Your task to perform on an android device: clear history in the chrome app Image 0: 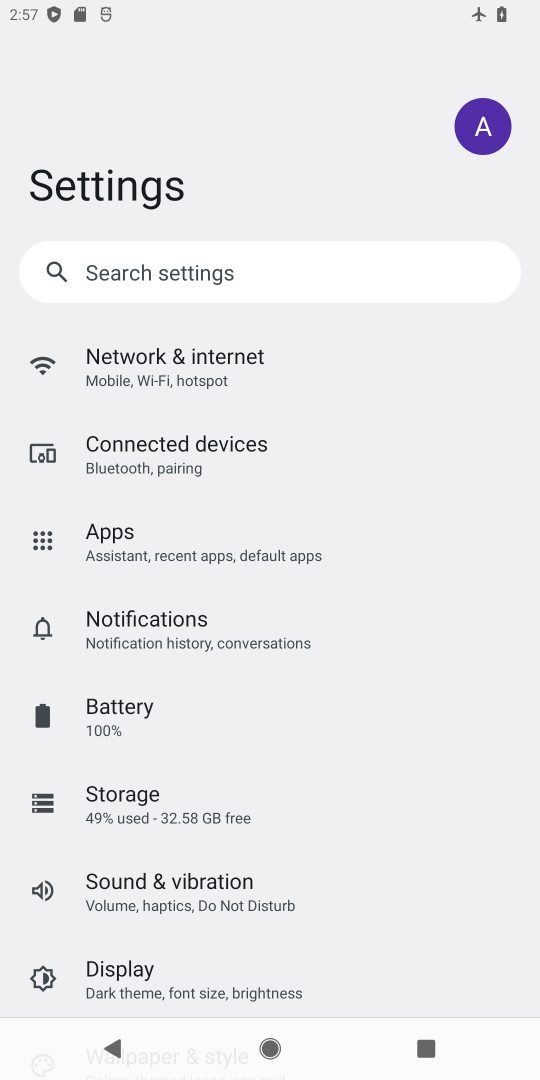
Step 0: press home button
Your task to perform on an android device: clear history in the chrome app Image 1: 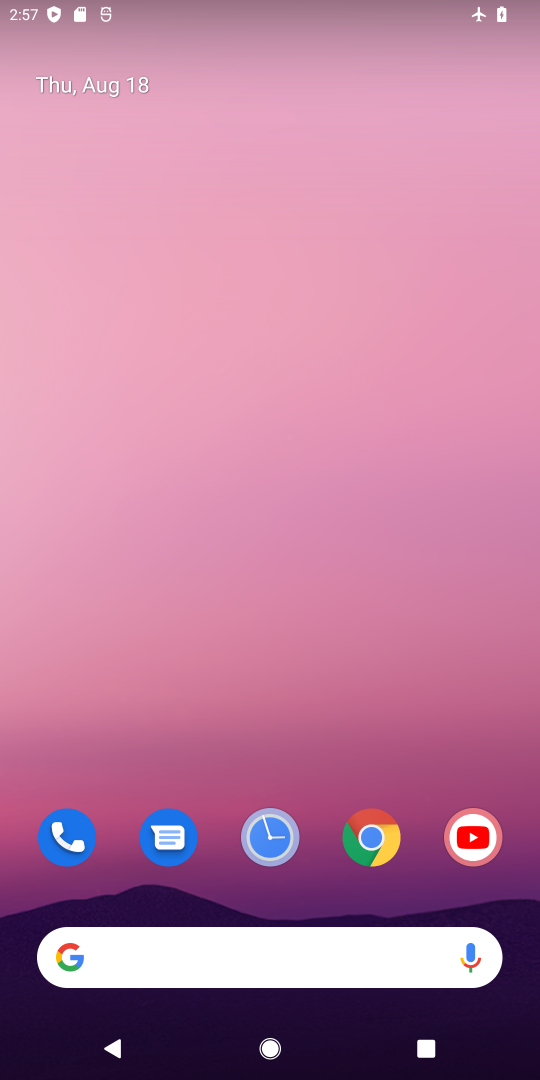
Step 1: drag from (331, 728) to (302, 5)
Your task to perform on an android device: clear history in the chrome app Image 2: 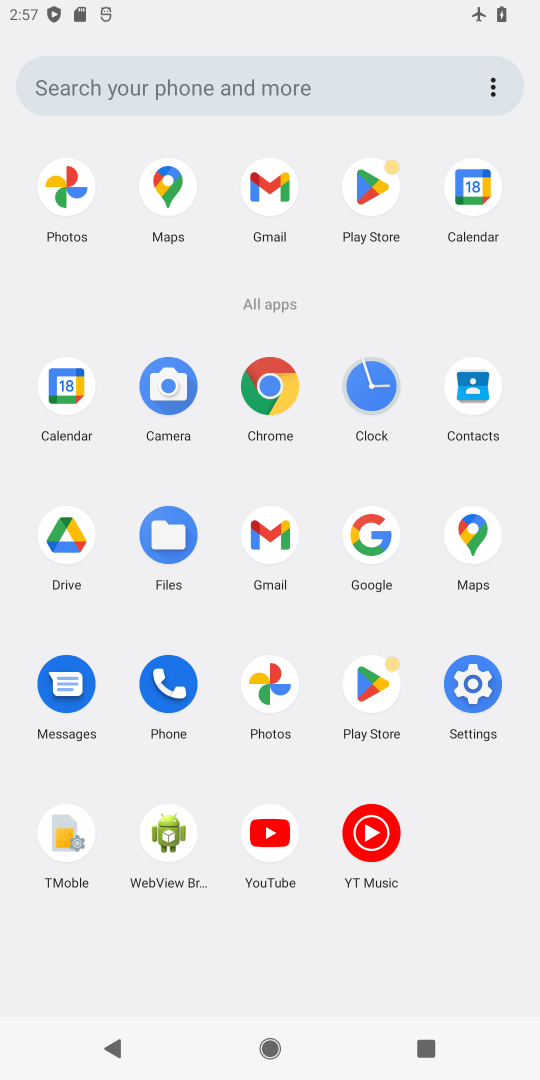
Step 2: click (265, 378)
Your task to perform on an android device: clear history in the chrome app Image 3: 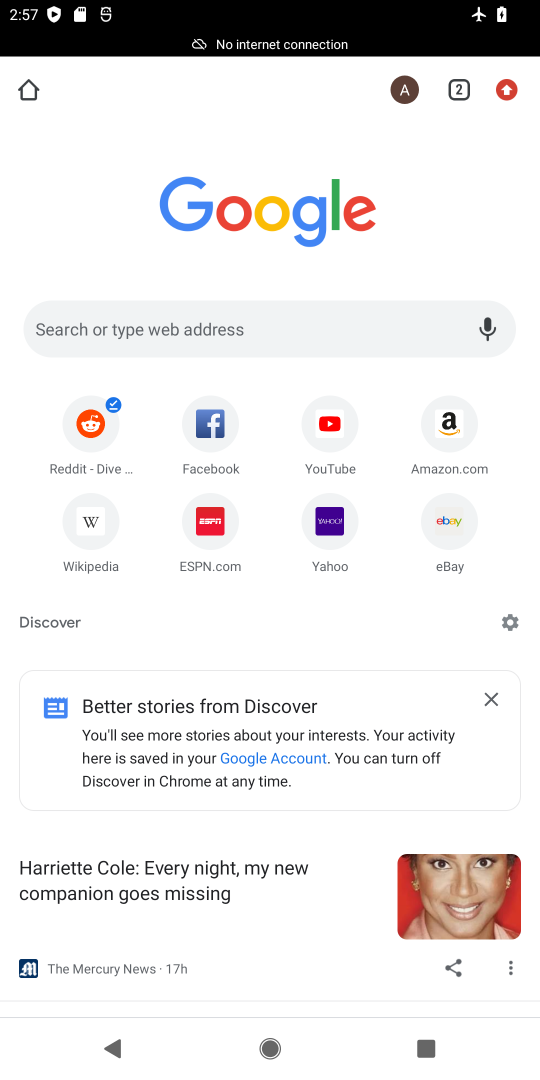
Step 3: drag from (534, 77) to (326, 349)
Your task to perform on an android device: clear history in the chrome app Image 4: 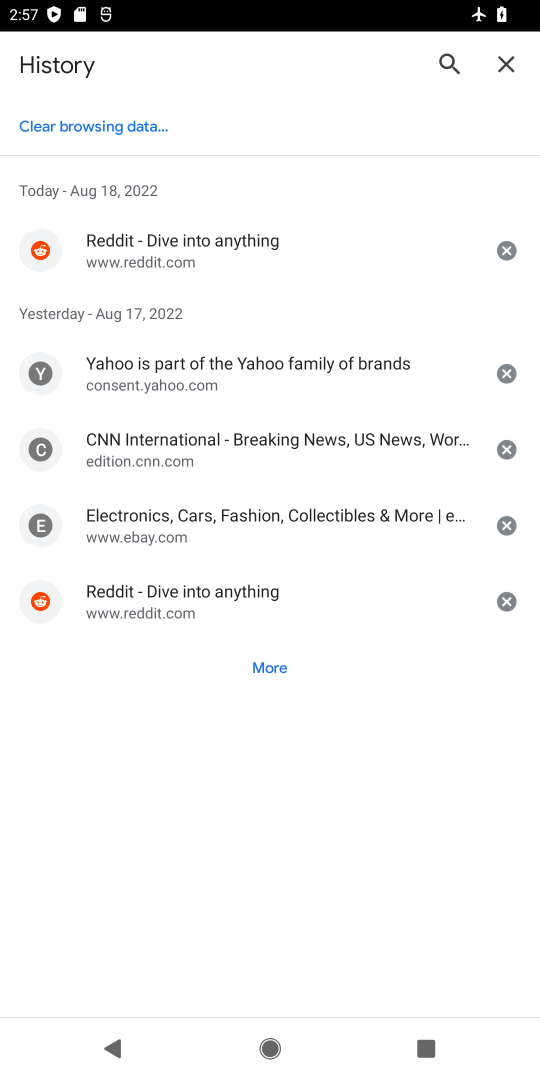
Step 4: click (106, 125)
Your task to perform on an android device: clear history in the chrome app Image 5: 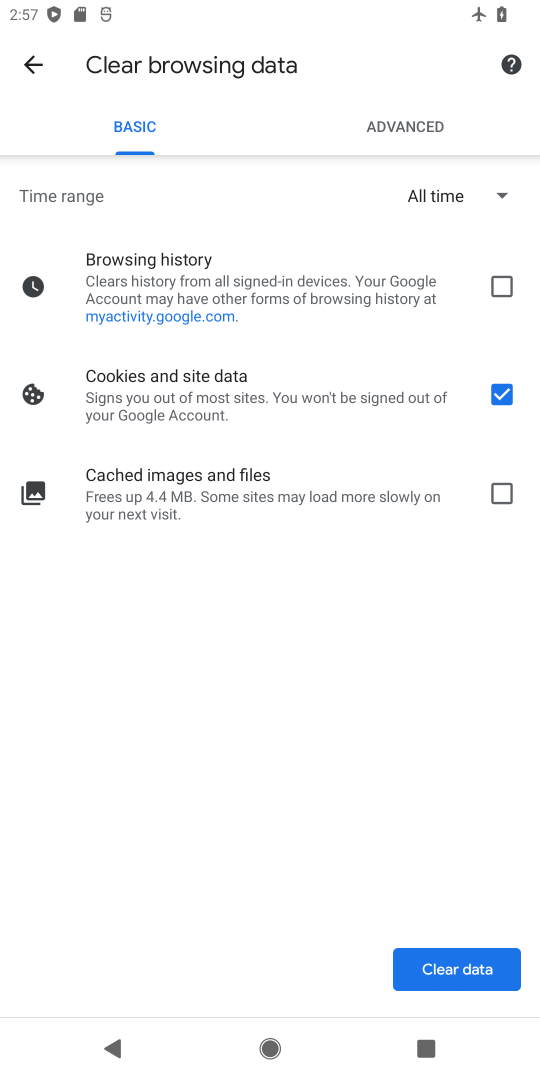
Step 5: click (500, 300)
Your task to perform on an android device: clear history in the chrome app Image 6: 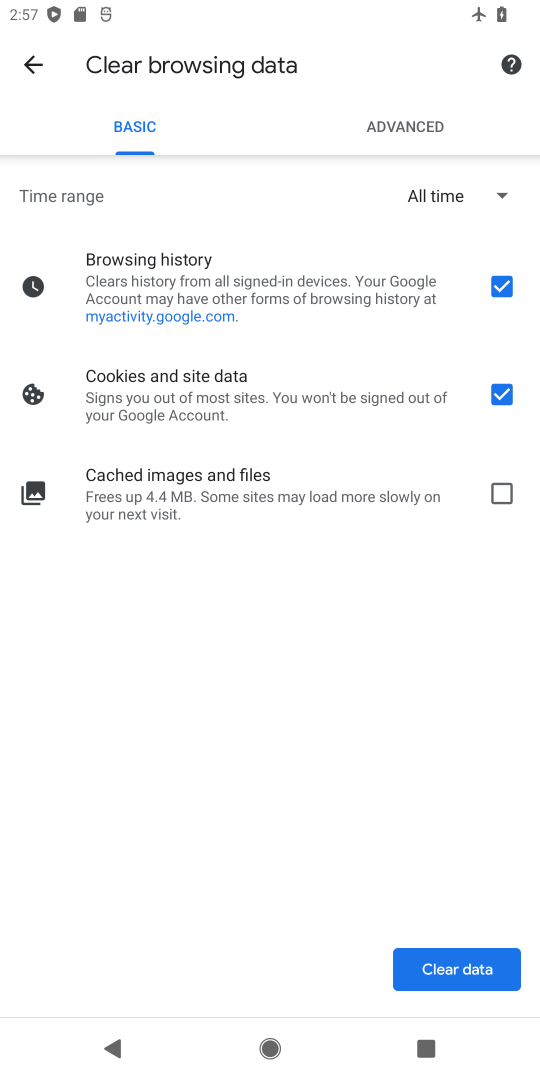
Step 6: click (502, 493)
Your task to perform on an android device: clear history in the chrome app Image 7: 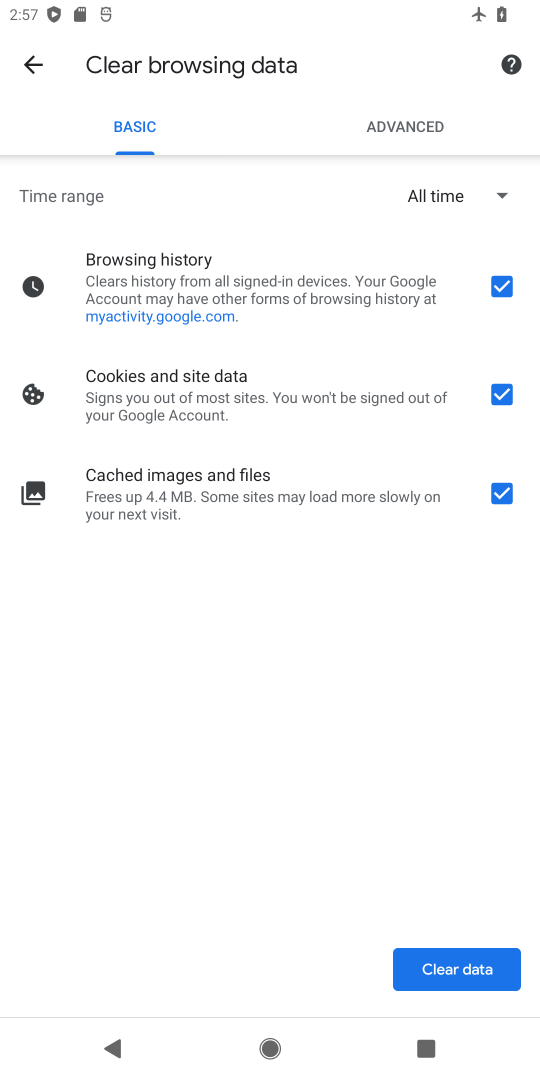
Step 7: click (451, 980)
Your task to perform on an android device: clear history in the chrome app Image 8: 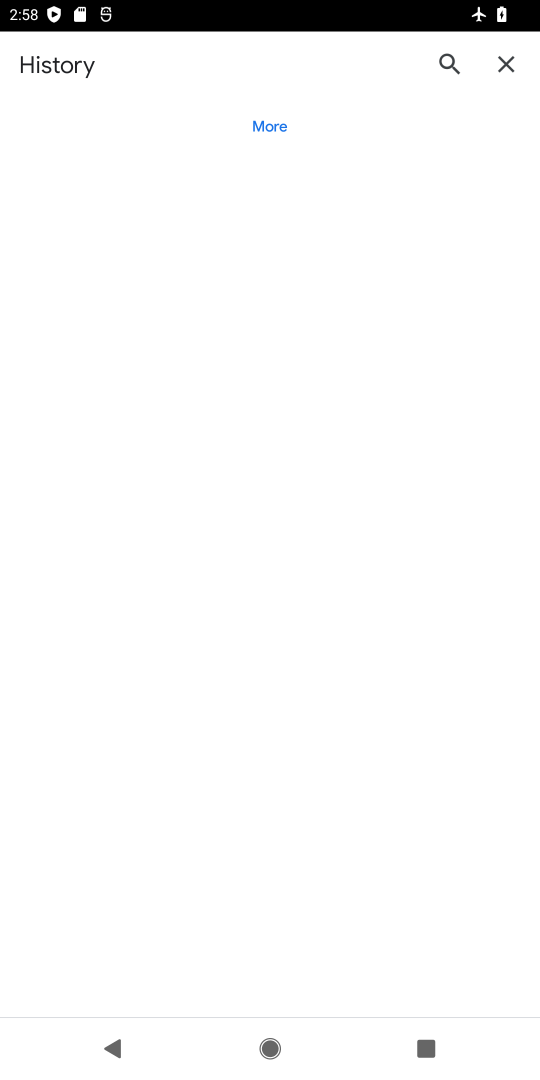
Step 8: task complete